Your task to perform on an android device: see creations saved in the google photos Image 0: 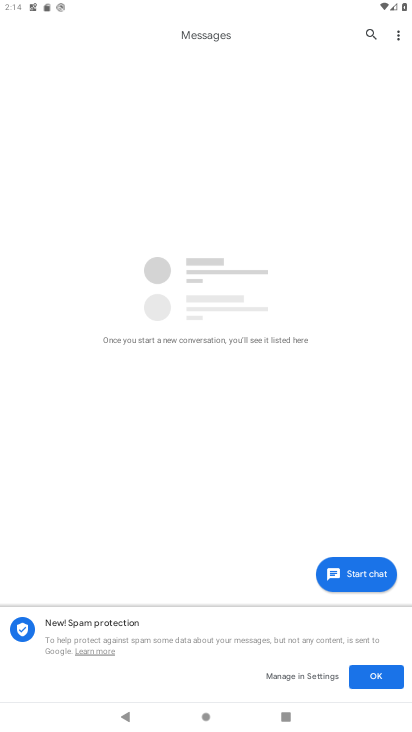
Step 0: press home button
Your task to perform on an android device: see creations saved in the google photos Image 1: 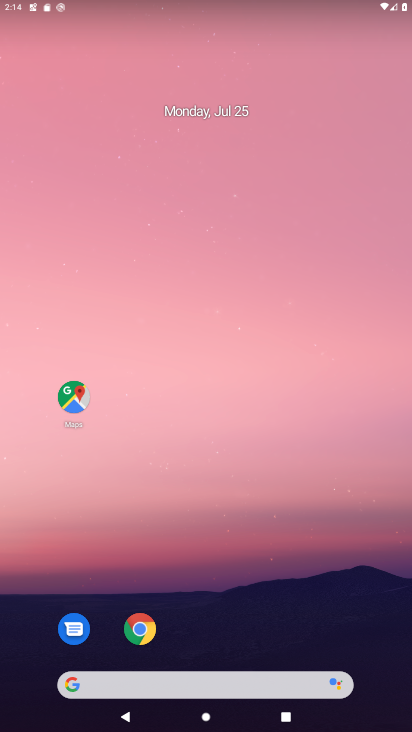
Step 1: drag from (276, 560) to (271, 52)
Your task to perform on an android device: see creations saved in the google photos Image 2: 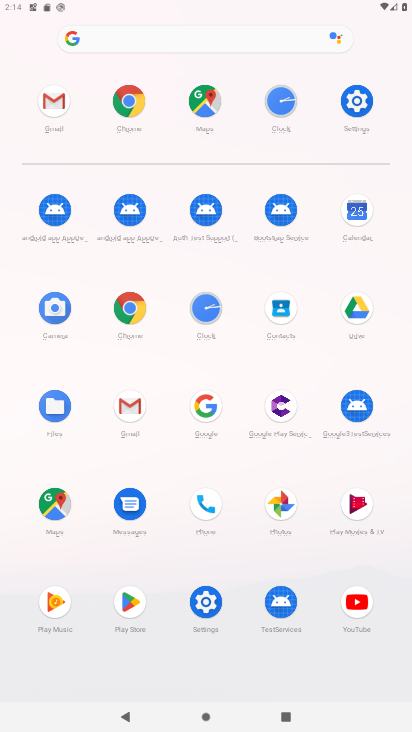
Step 2: click (284, 504)
Your task to perform on an android device: see creations saved in the google photos Image 3: 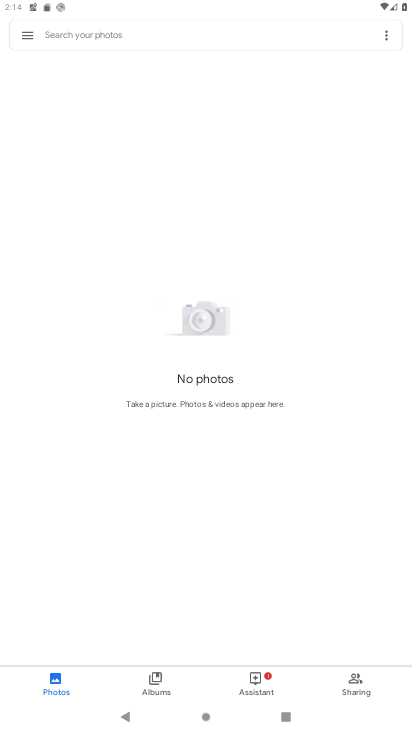
Step 3: click (158, 681)
Your task to perform on an android device: see creations saved in the google photos Image 4: 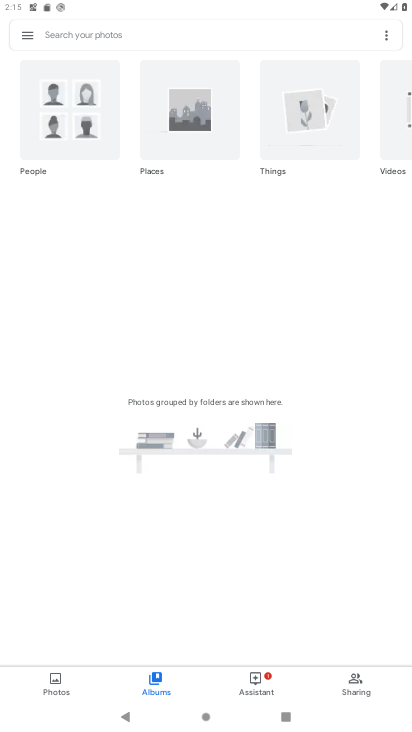
Step 4: task complete